Your task to perform on an android device: Open the stopwatch Image 0: 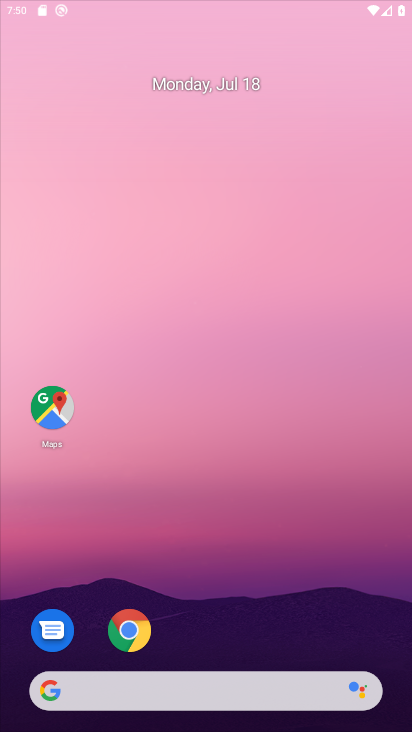
Step 0: drag from (257, 597) to (246, 260)
Your task to perform on an android device: Open the stopwatch Image 1: 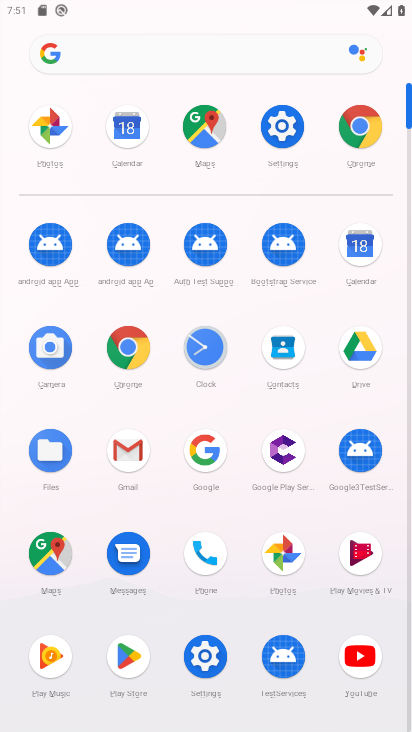
Step 1: click (201, 347)
Your task to perform on an android device: Open the stopwatch Image 2: 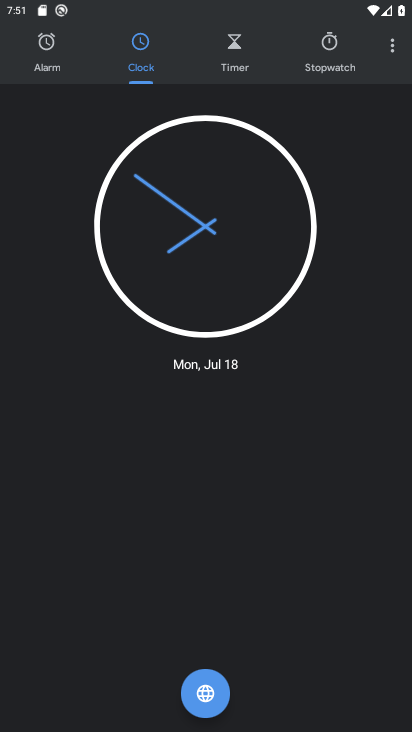
Step 2: click (320, 67)
Your task to perform on an android device: Open the stopwatch Image 3: 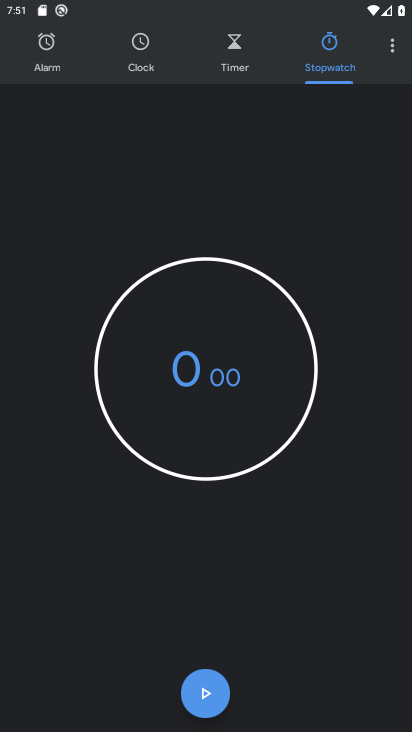
Step 3: task complete